Your task to perform on an android device: Check the news Image 0: 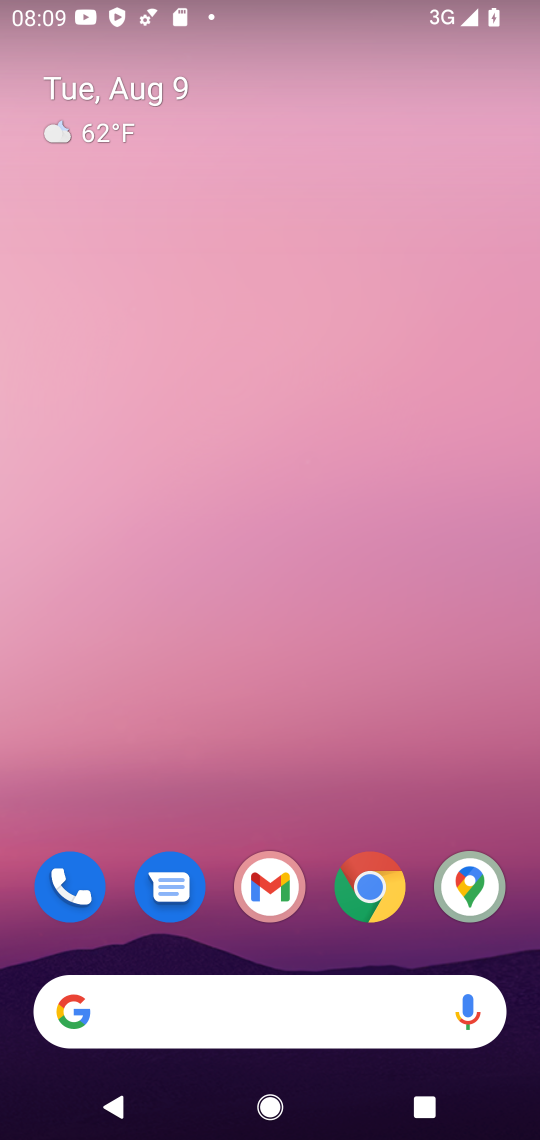
Step 0: click (284, 794)
Your task to perform on an android device: Check the news Image 1: 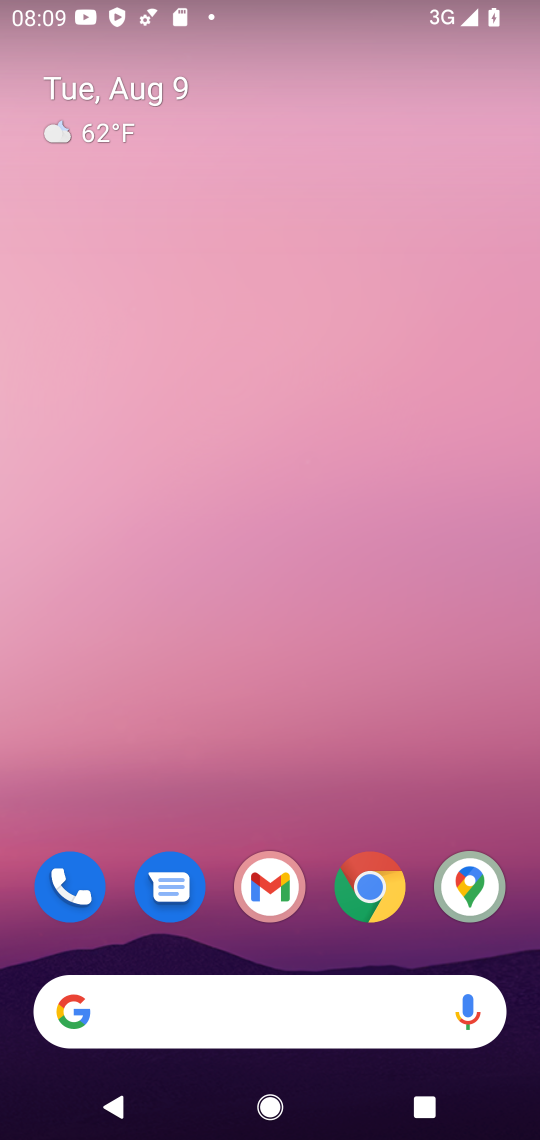
Step 1: click (263, 1004)
Your task to perform on an android device: Check the news Image 2: 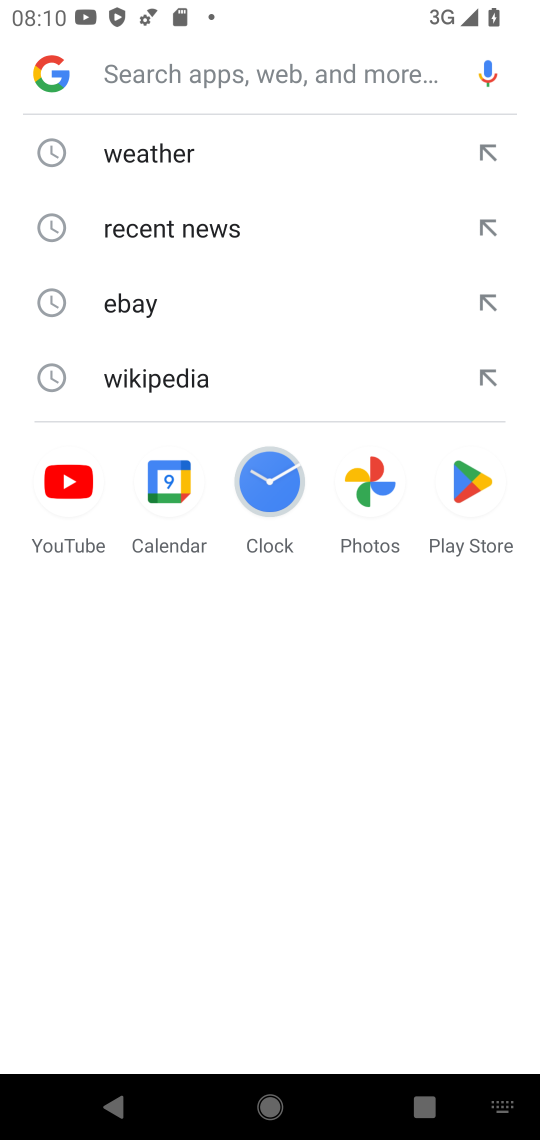
Step 2: click (153, 236)
Your task to perform on an android device: Check the news Image 3: 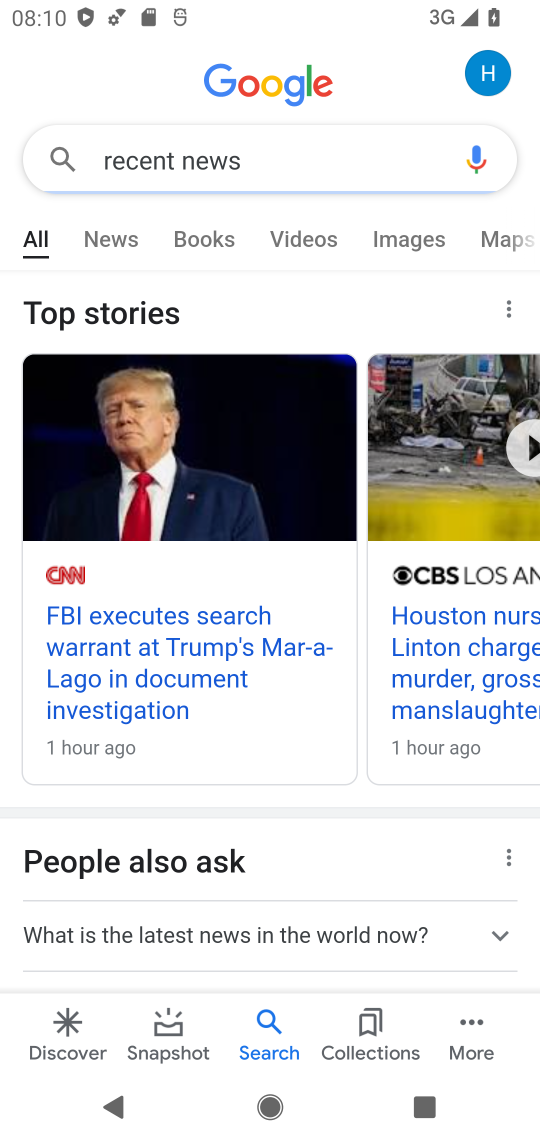
Step 3: click (125, 240)
Your task to perform on an android device: Check the news Image 4: 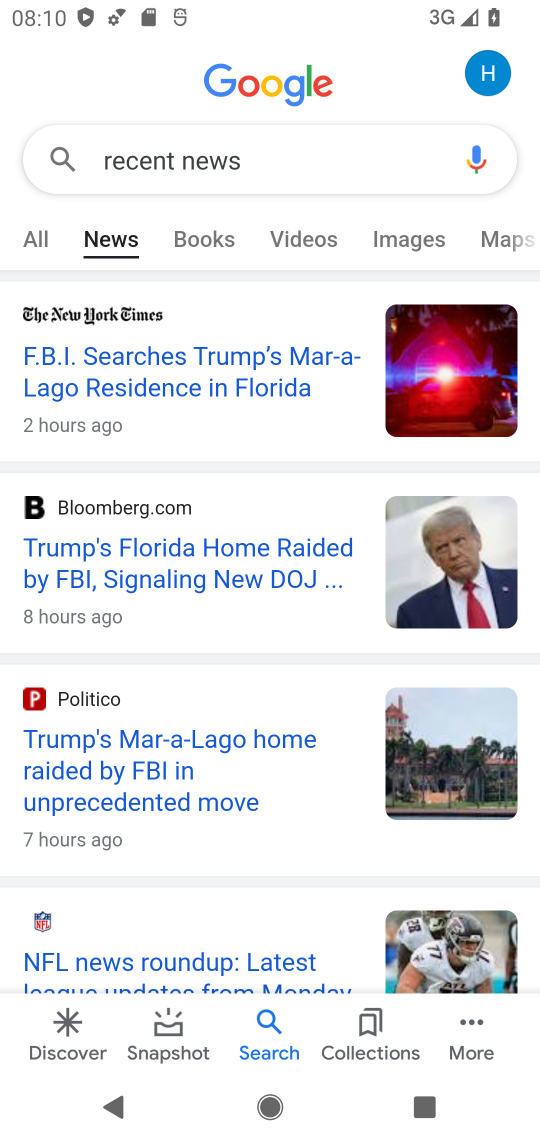
Step 4: task complete